Your task to perform on an android device: open wifi settings Image 0: 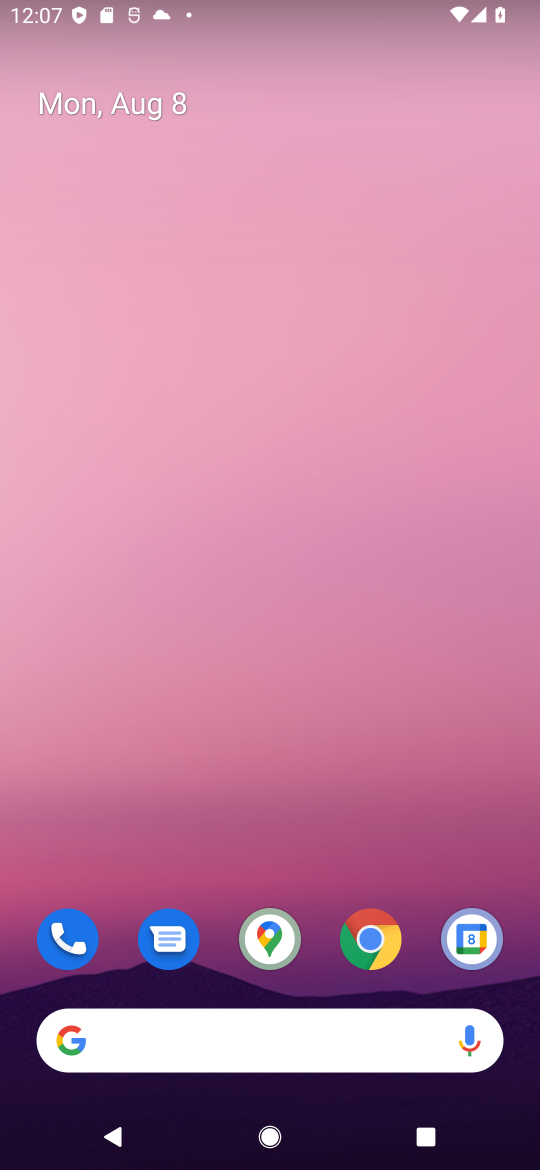
Step 0: drag from (258, 1032) to (289, 180)
Your task to perform on an android device: open wifi settings Image 1: 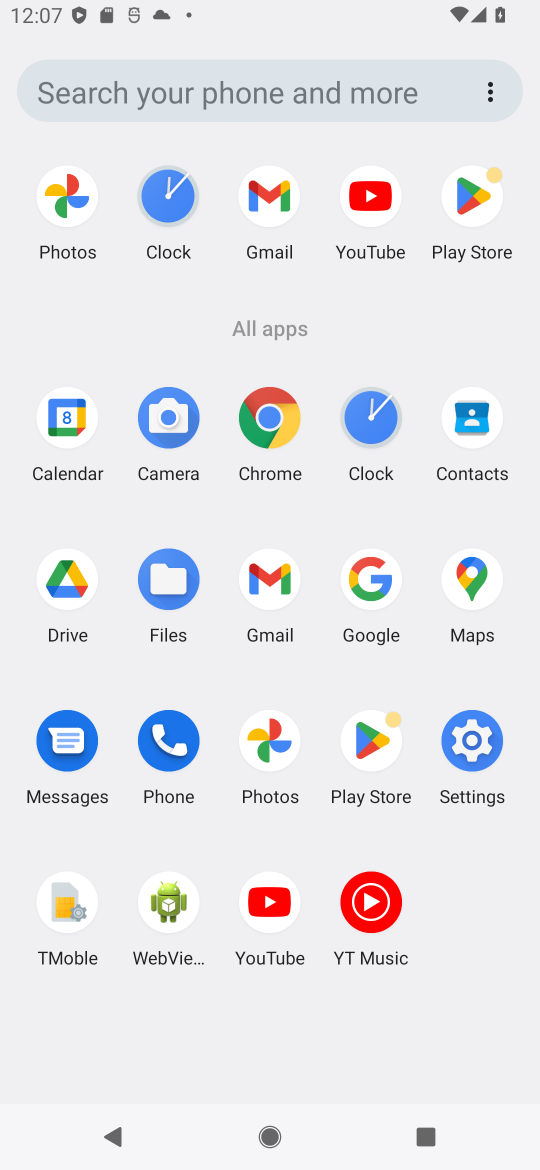
Step 1: click (472, 735)
Your task to perform on an android device: open wifi settings Image 2: 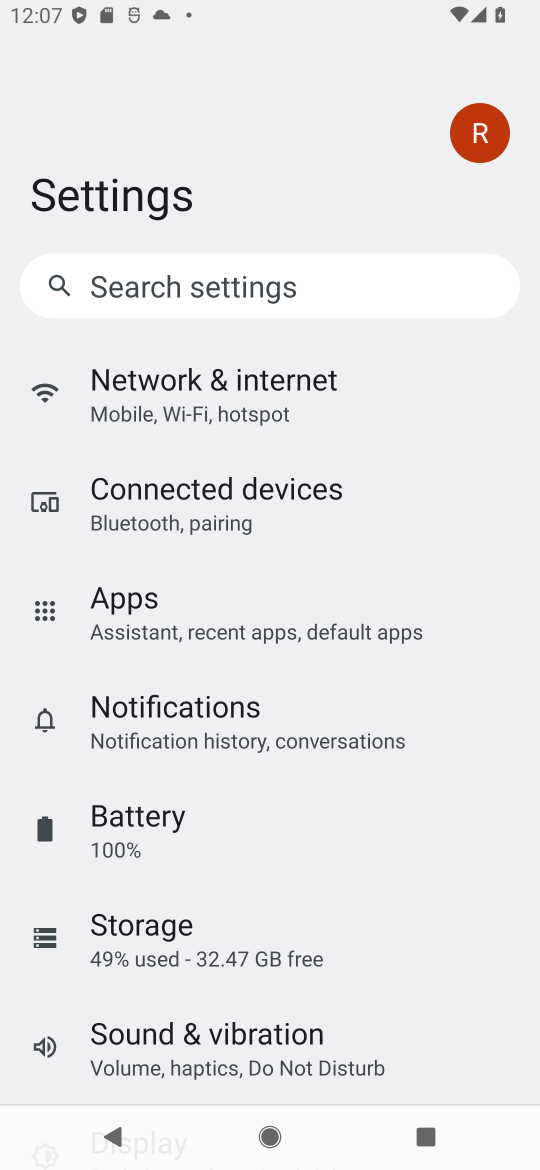
Step 2: click (205, 408)
Your task to perform on an android device: open wifi settings Image 3: 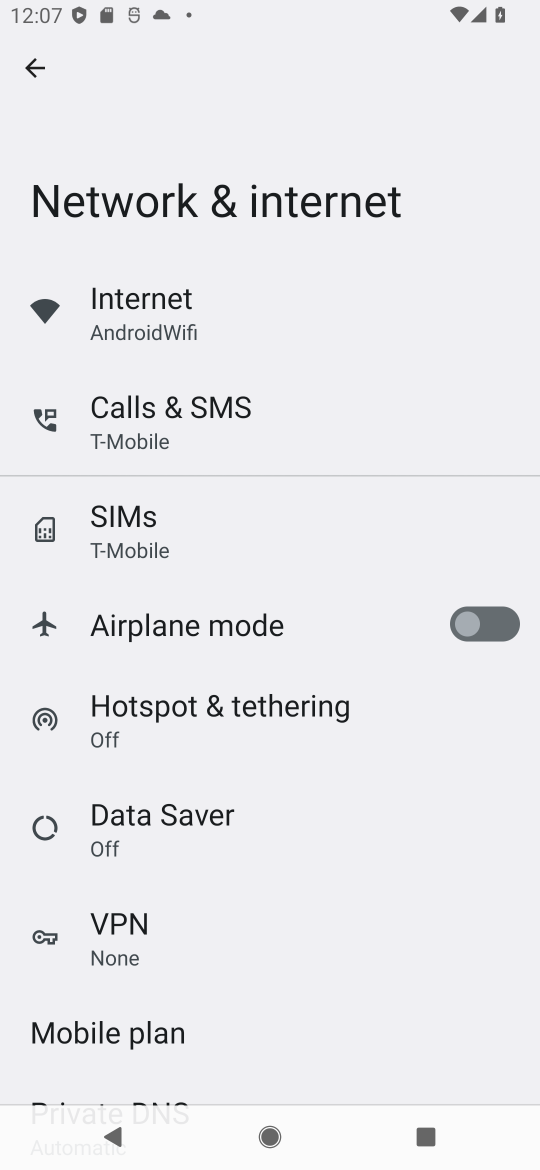
Step 3: click (132, 312)
Your task to perform on an android device: open wifi settings Image 4: 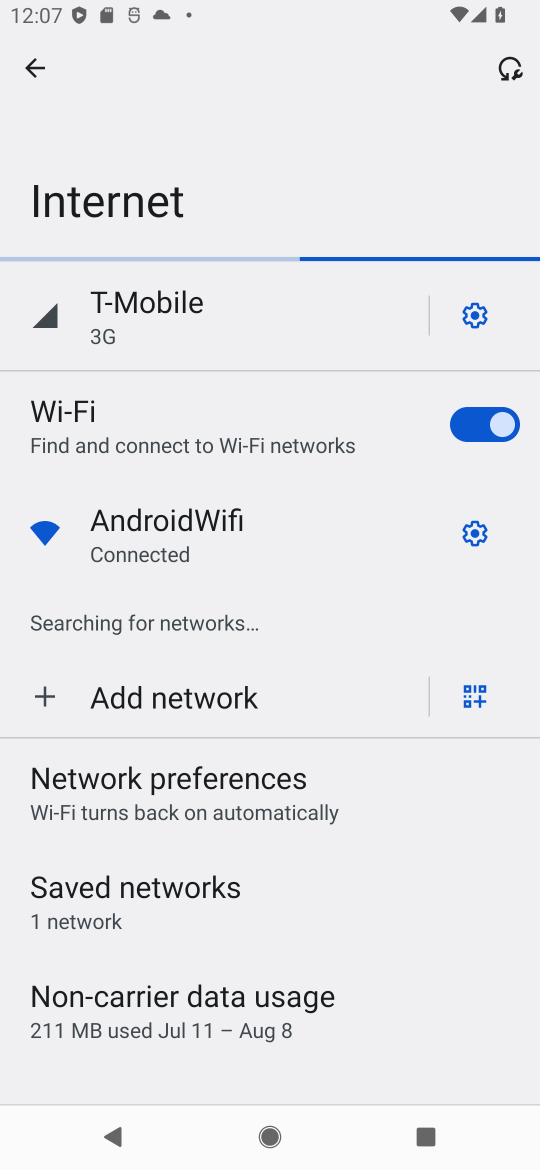
Step 4: click (471, 534)
Your task to perform on an android device: open wifi settings Image 5: 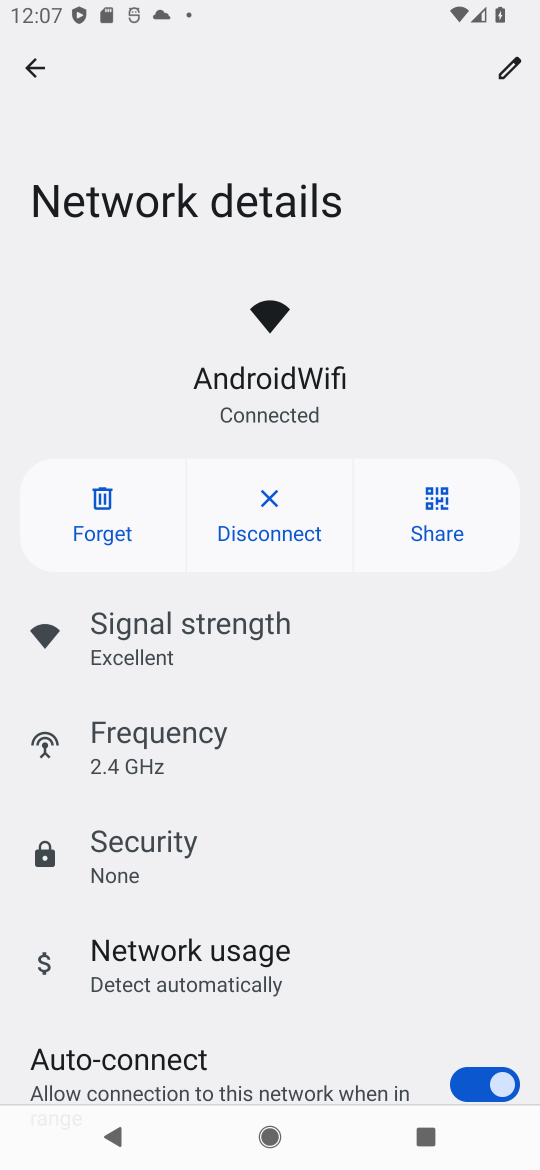
Step 5: task complete